Your task to perform on an android device: When is my next meeting? Image 0: 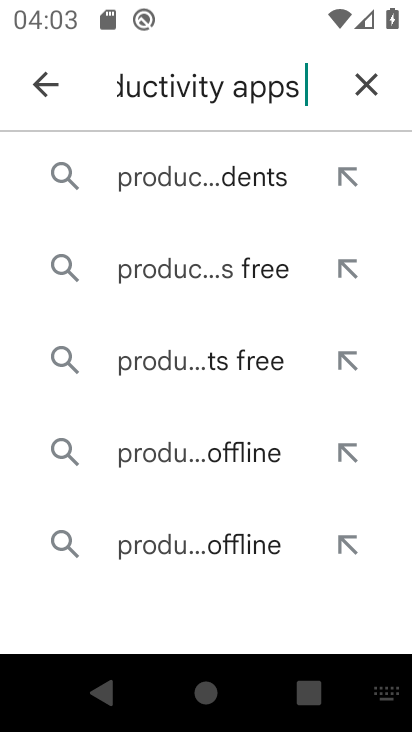
Step 0: click (368, 78)
Your task to perform on an android device: When is my next meeting? Image 1: 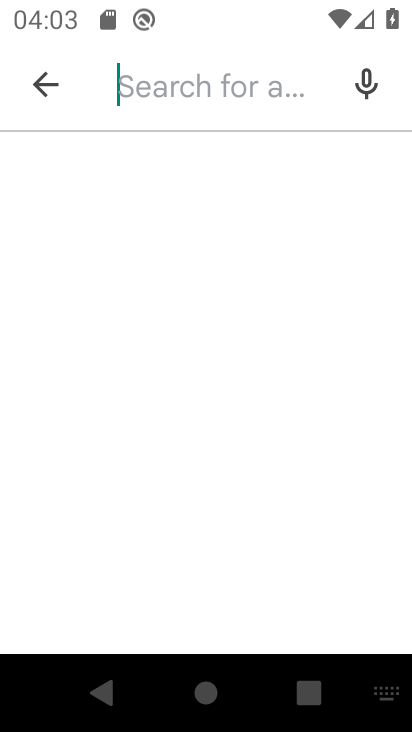
Step 1: press home button
Your task to perform on an android device: When is my next meeting? Image 2: 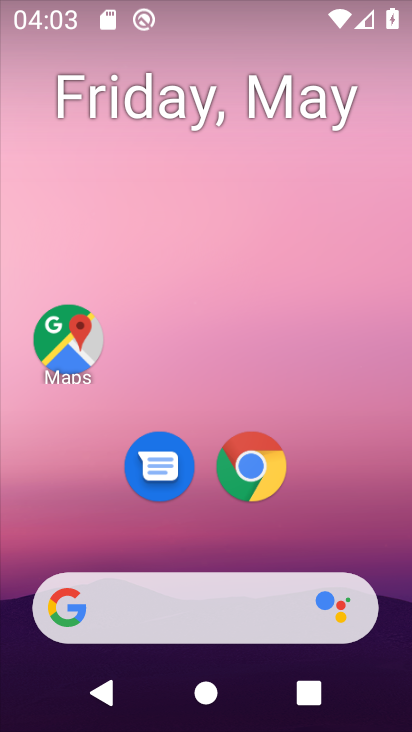
Step 2: drag from (405, 643) to (337, 252)
Your task to perform on an android device: When is my next meeting? Image 3: 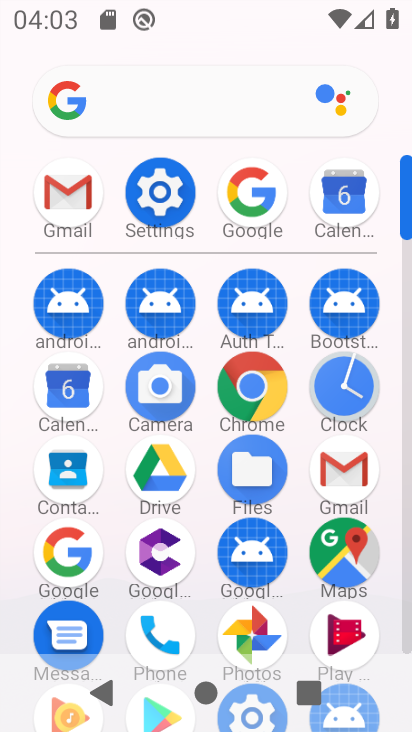
Step 3: click (61, 395)
Your task to perform on an android device: When is my next meeting? Image 4: 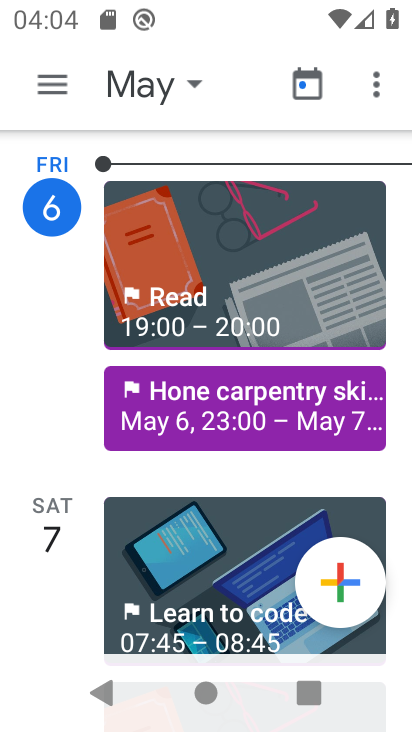
Step 4: click (53, 83)
Your task to perform on an android device: When is my next meeting? Image 5: 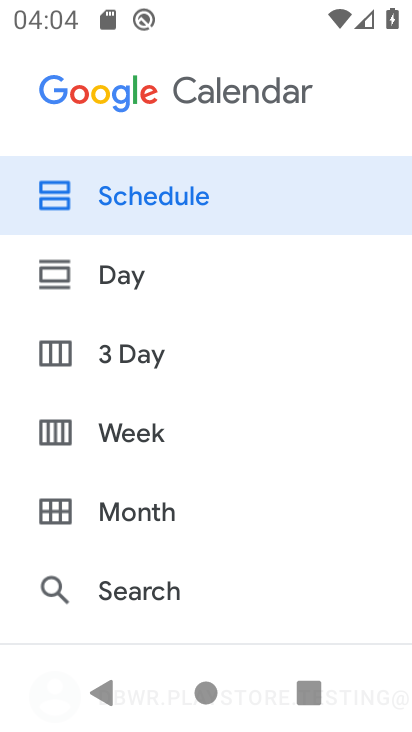
Step 5: click (132, 187)
Your task to perform on an android device: When is my next meeting? Image 6: 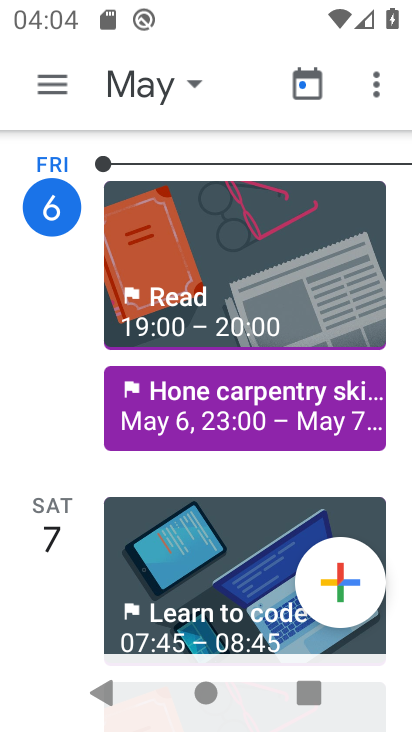
Step 6: click (193, 84)
Your task to perform on an android device: When is my next meeting? Image 7: 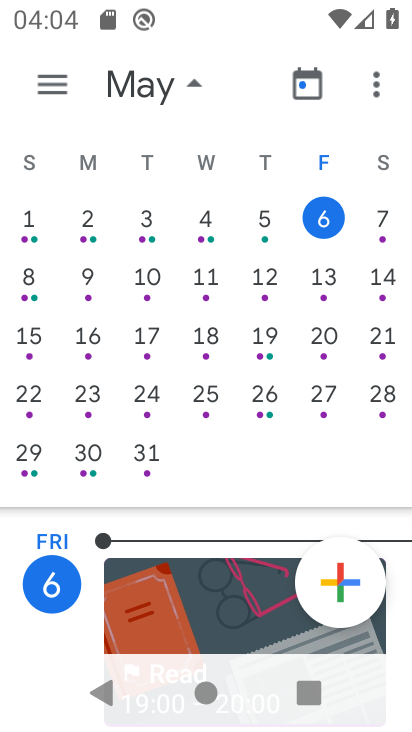
Step 7: task complete